Your task to perform on an android device: open a bookmark in the chrome app Image 0: 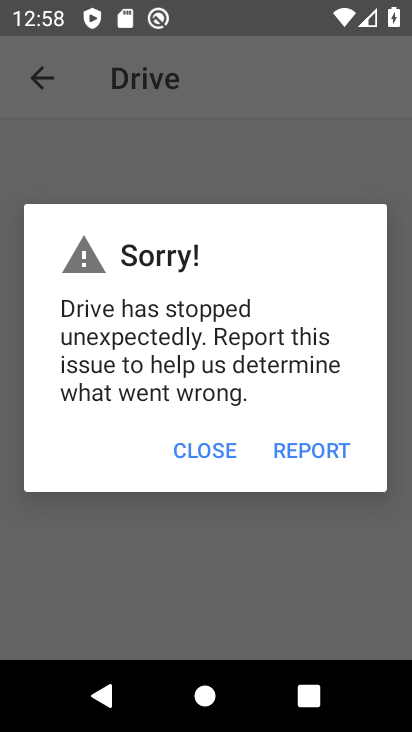
Step 0: press home button
Your task to perform on an android device: open a bookmark in the chrome app Image 1: 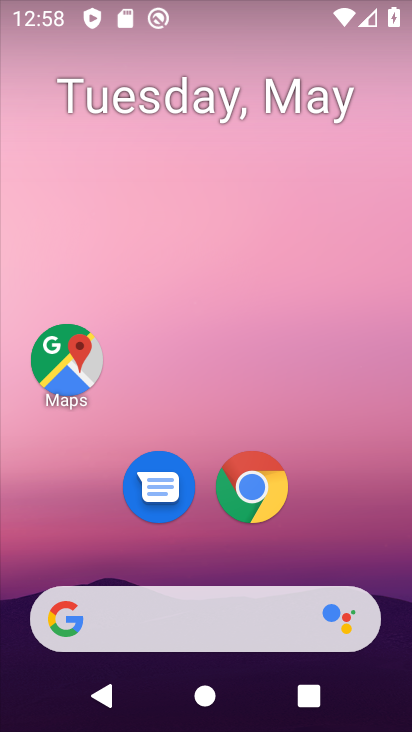
Step 1: drag from (309, 531) to (247, 63)
Your task to perform on an android device: open a bookmark in the chrome app Image 2: 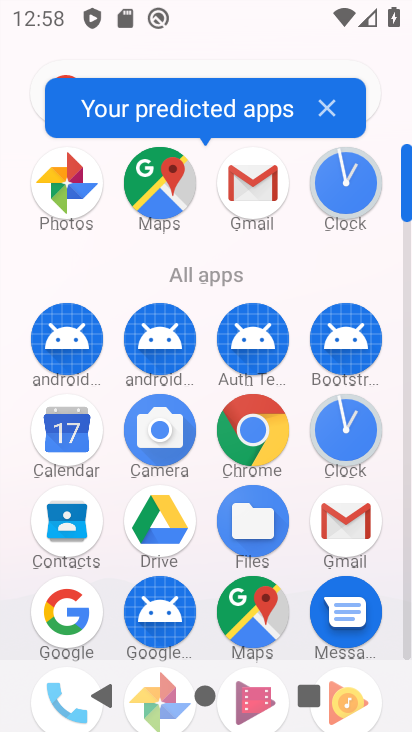
Step 2: click (263, 431)
Your task to perform on an android device: open a bookmark in the chrome app Image 3: 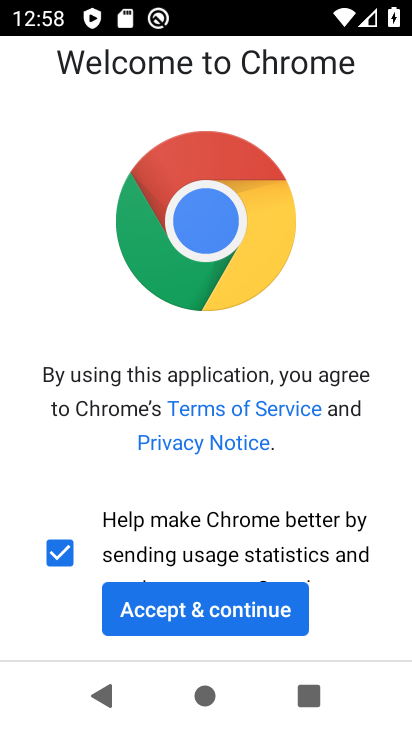
Step 3: click (210, 618)
Your task to perform on an android device: open a bookmark in the chrome app Image 4: 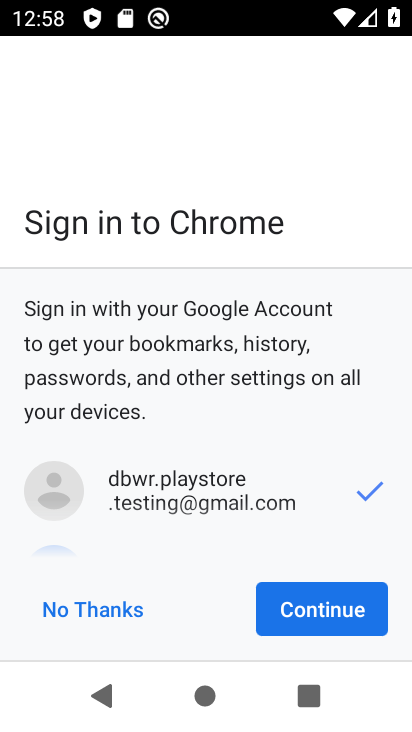
Step 4: click (372, 627)
Your task to perform on an android device: open a bookmark in the chrome app Image 5: 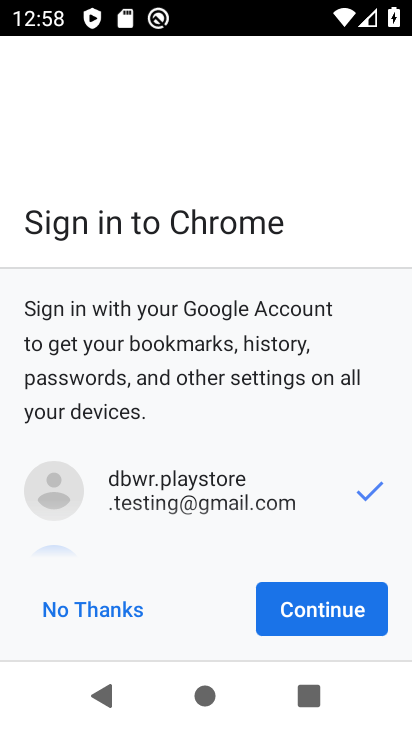
Step 5: click (372, 627)
Your task to perform on an android device: open a bookmark in the chrome app Image 6: 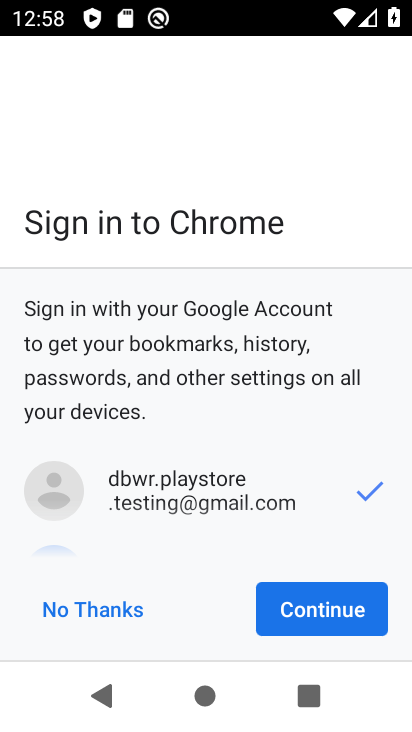
Step 6: click (372, 627)
Your task to perform on an android device: open a bookmark in the chrome app Image 7: 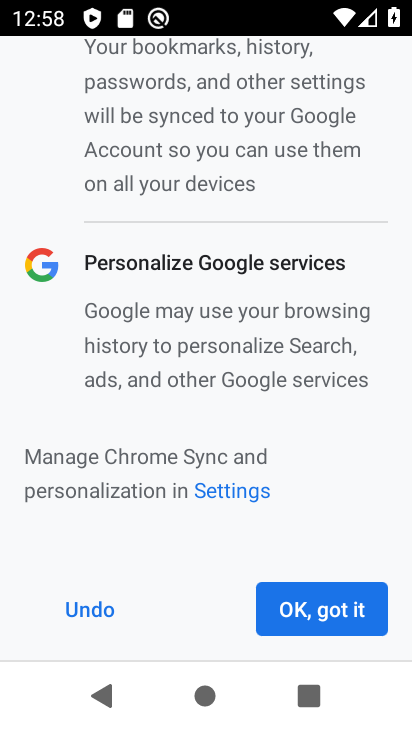
Step 7: click (372, 630)
Your task to perform on an android device: open a bookmark in the chrome app Image 8: 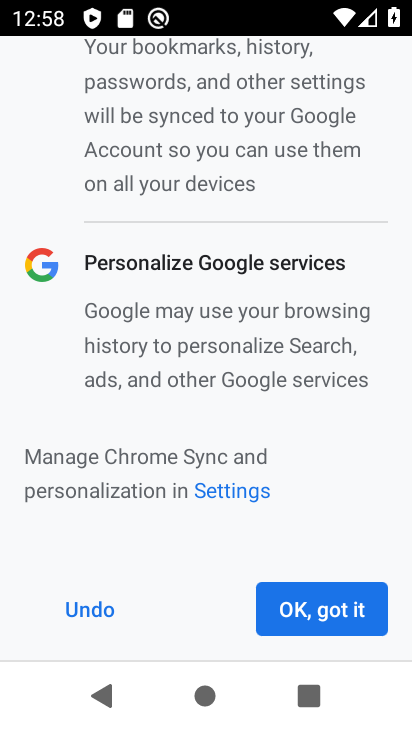
Step 8: click (369, 625)
Your task to perform on an android device: open a bookmark in the chrome app Image 9: 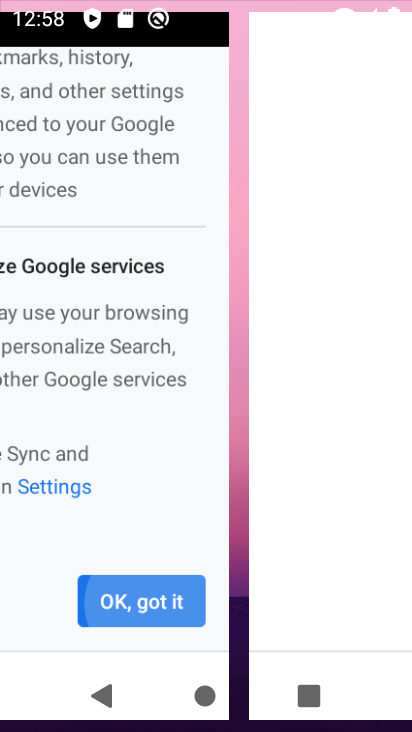
Step 9: click (369, 625)
Your task to perform on an android device: open a bookmark in the chrome app Image 10: 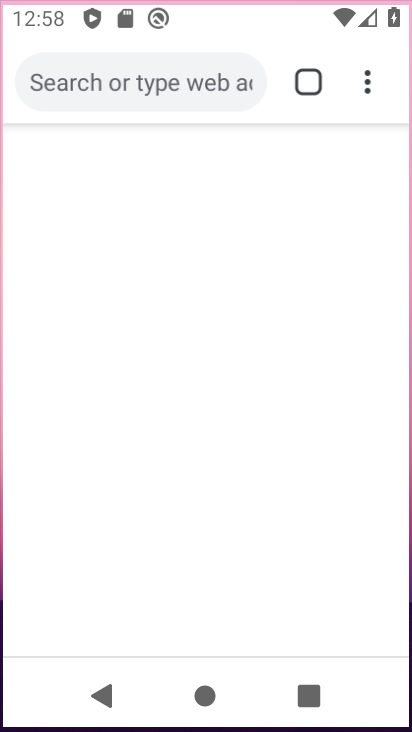
Step 10: click (369, 625)
Your task to perform on an android device: open a bookmark in the chrome app Image 11: 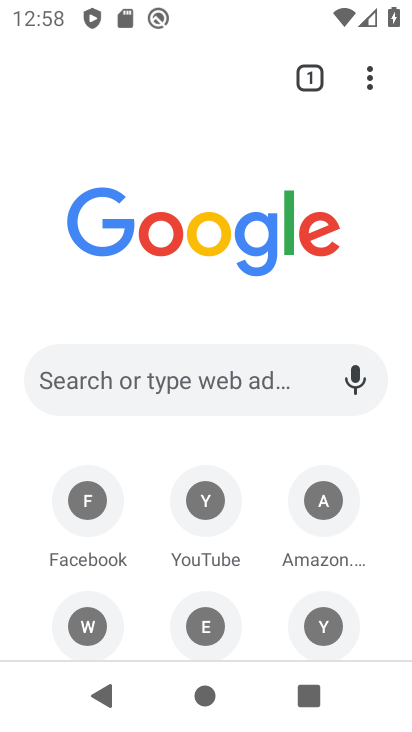
Step 11: task complete